Your task to perform on an android device: Open Maps and search for coffee Image 0: 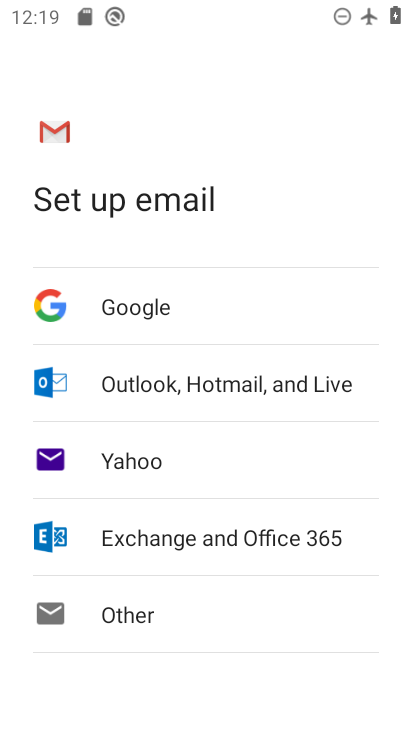
Step 0: drag from (348, 573) to (342, 405)
Your task to perform on an android device: Open Maps and search for coffee Image 1: 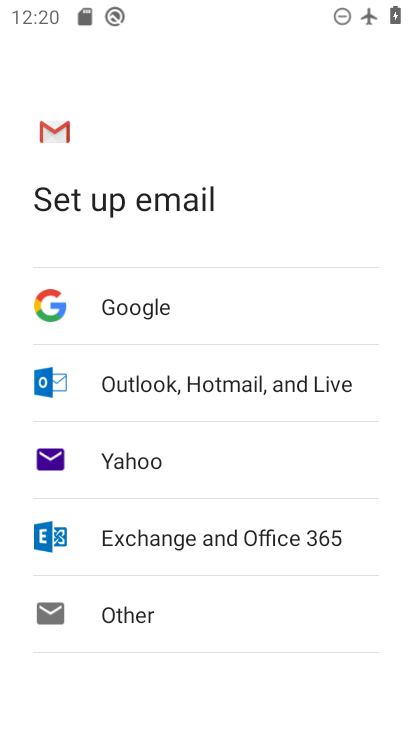
Step 1: press home button
Your task to perform on an android device: Open Maps and search for coffee Image 2: 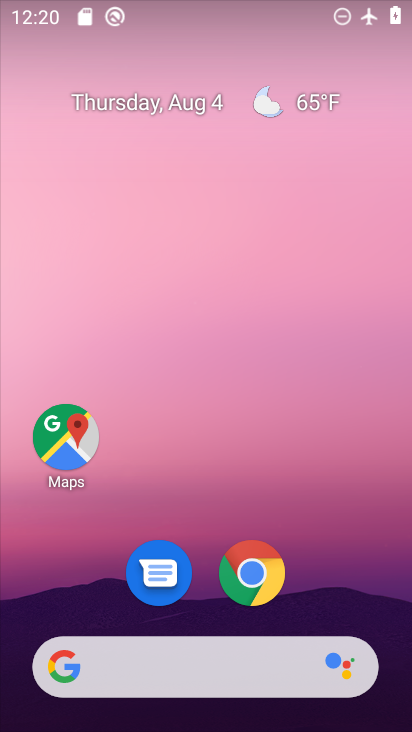
Step 2: drag from (357, 574) to (338, 108)
Your task to perform on an android device: Open Maps and search for coffee Image 3: 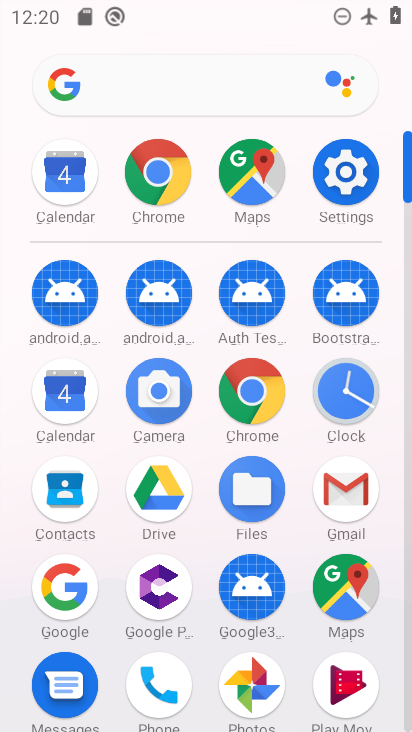
Step 3: click (358, 589)
Your task to perform on an android device: Open Maps and search for coffee Image 4: 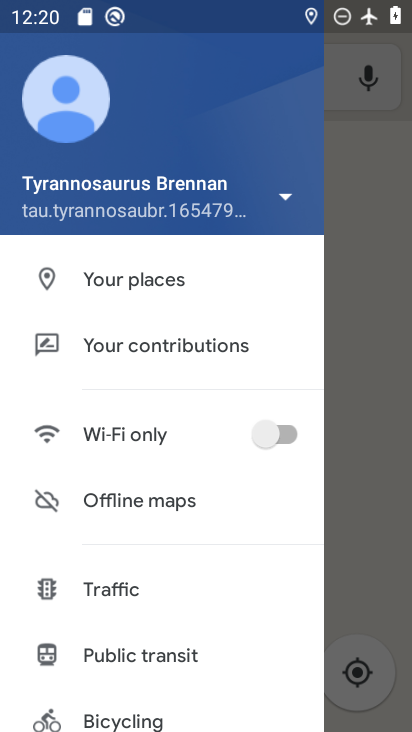
Step 4: click (352, 576)
Your task to perform on an android device: Open Maps and search for coffee Image 5: 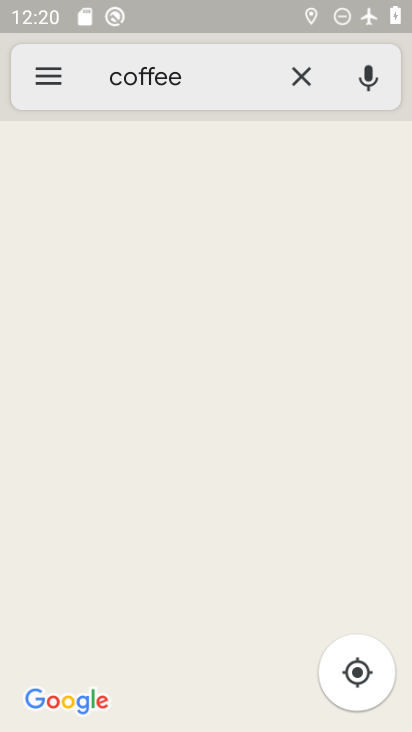
Step 5: click (243, 78)
Your task to perform on an android device: Open Maps and search for coffee Image 6: 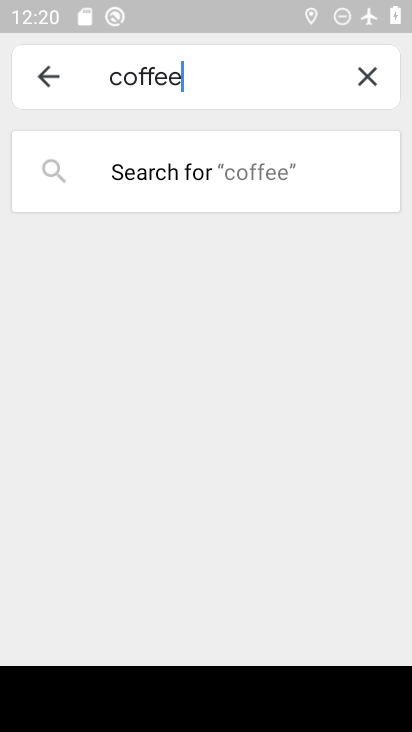
Step 6: press enter
Your task to perform on an android device: Open Maps and search for coffee Image 7: 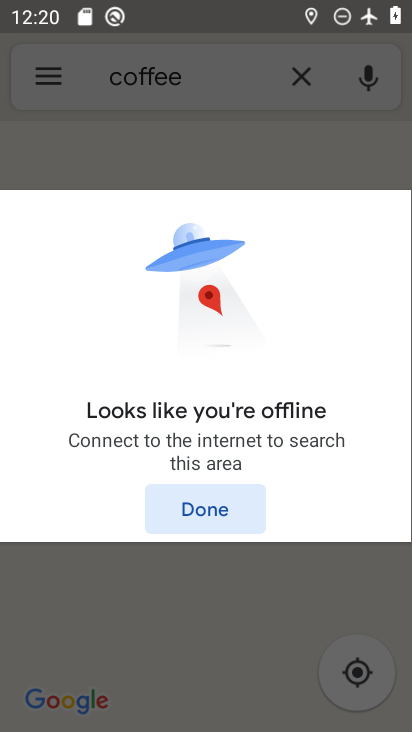
Step 7: click (204, 485)
Your task to perform on an android device: Open Maps and search for coffee Image 8: 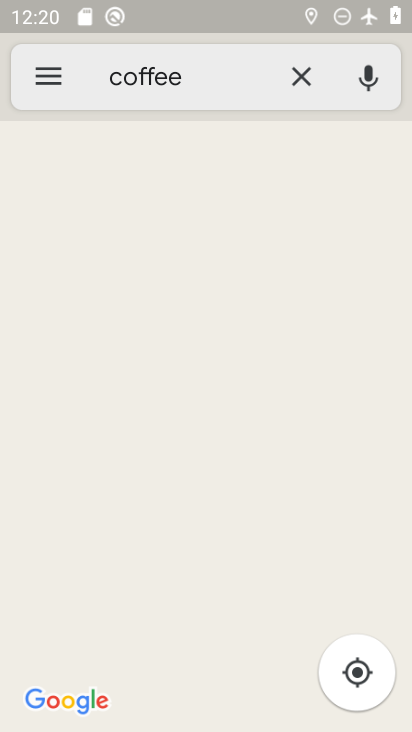
Step 8: task complete